Your task to perform on an android device: Go to notification settings Image 0: 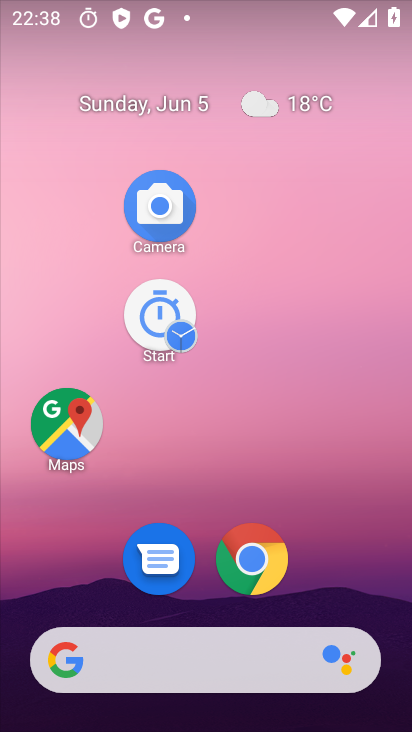
Step 0: drag from (212, 205) to (178, 11)
Your task to perform on an android device: Go to notification settings Image 1: 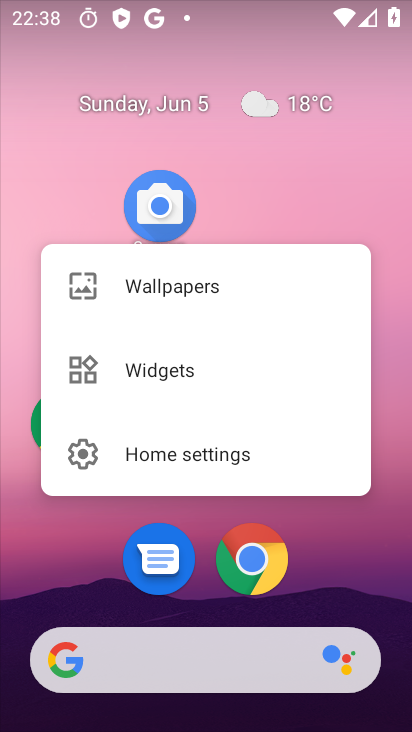
Step 1: click (239, 180)
Your task to perform on an android device: Go to notification settings Image 2: 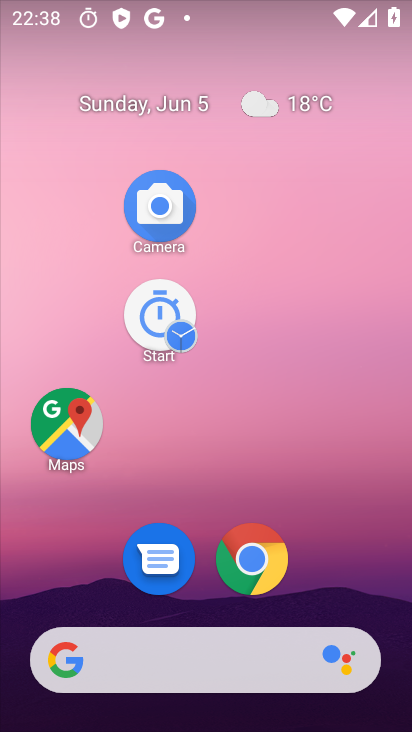
Step 2: drag from (249, 163) to (249, 39)
Your task to perform on an android device: Go to notification settings Image 3: 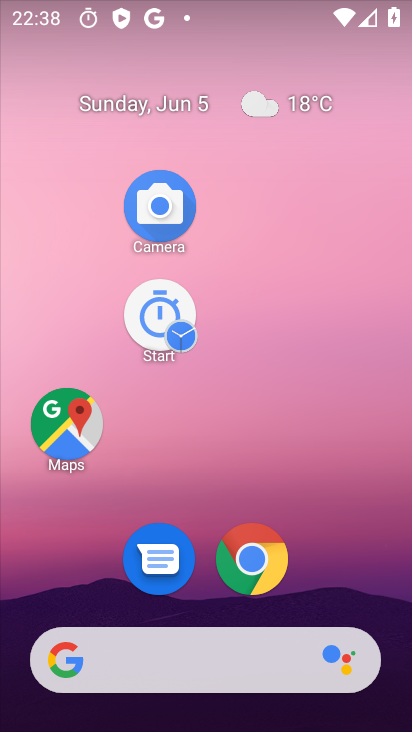
Step 3: drag from (250, 705) to (187, 32)
Your task to perform on an android device: Go to notification settings Image 4: 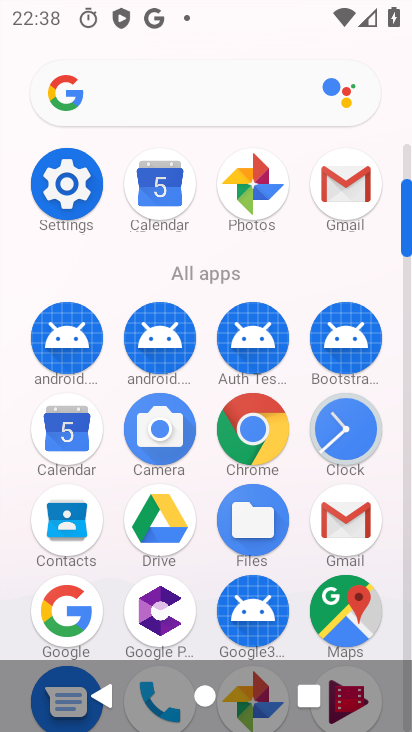
Step 4: click (57, 178)
Your task to perform on an android device: Go to notification settings Image 5: 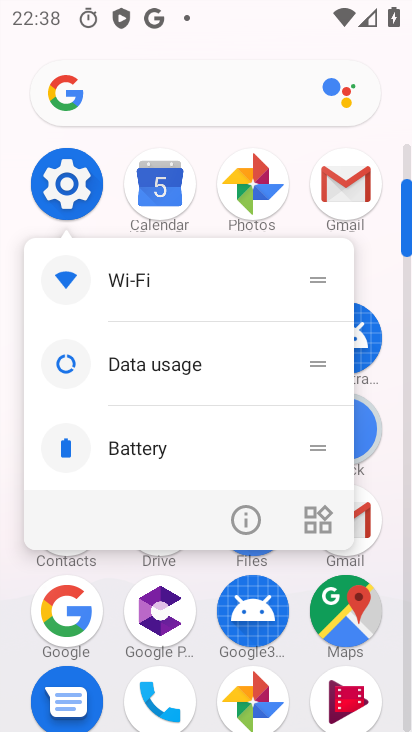
Step 5: click (50, 195)
Your task to perform on an android device: Go to notification settings Image 6: 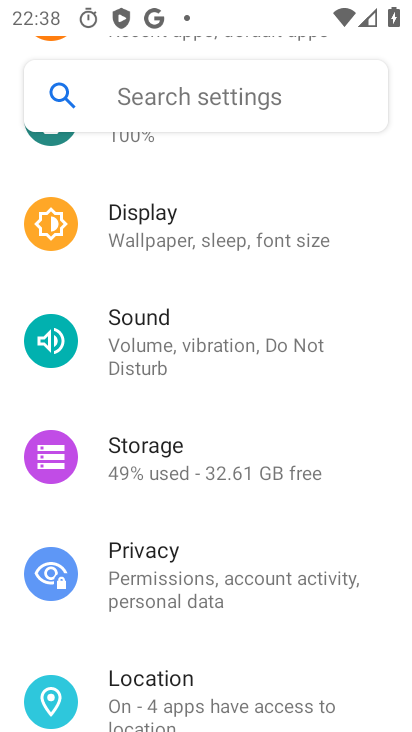
Step 6: drag from (237, 233) to (260, 462)
Your task to perform on an android device: Go to notification settings Image 7: 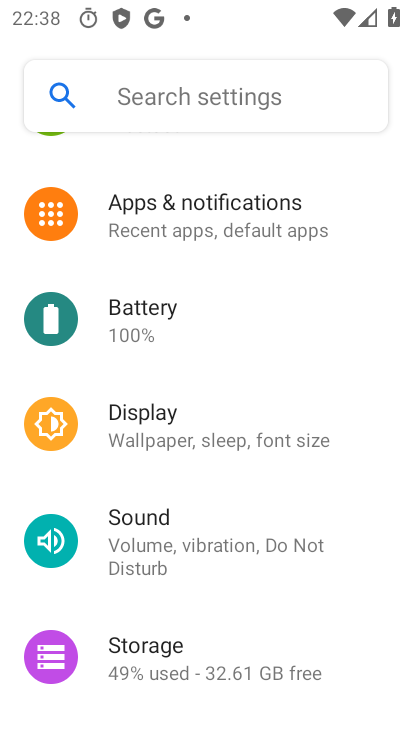
Step 7: click (186, 203)
Your task to perform on an android device: Go to notification settings Image 8: 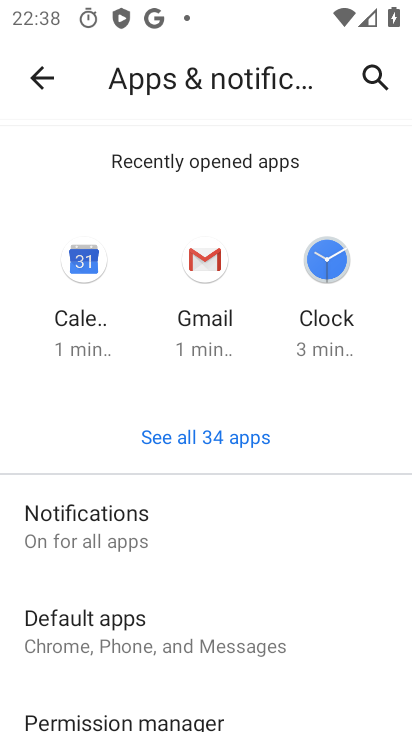
Step 8: click (68, 544)
Your task to perform on an android device: Go to notification settings Image 9: 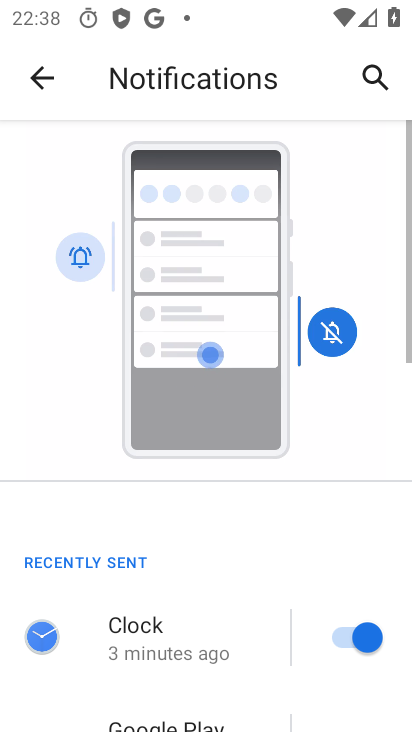
Step 9: drag from (191, 492) to (196, 28)
Your task to perform on an android device: Go to notification settings Image 10: 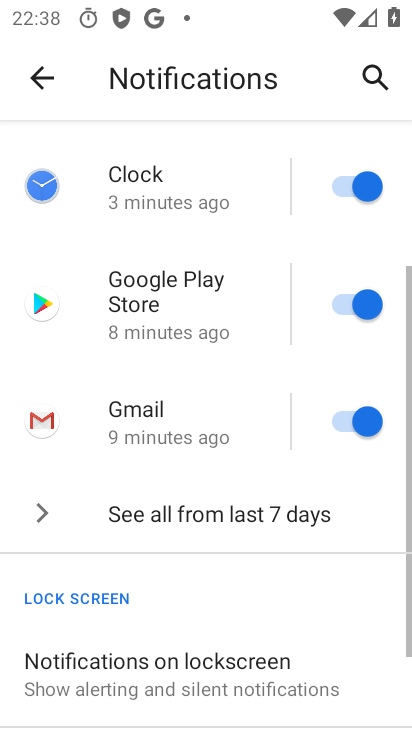
Step 10: drag from (232, 698) to (236, 39)
Your task to perform on an android device: Go to notification settings Image 11: 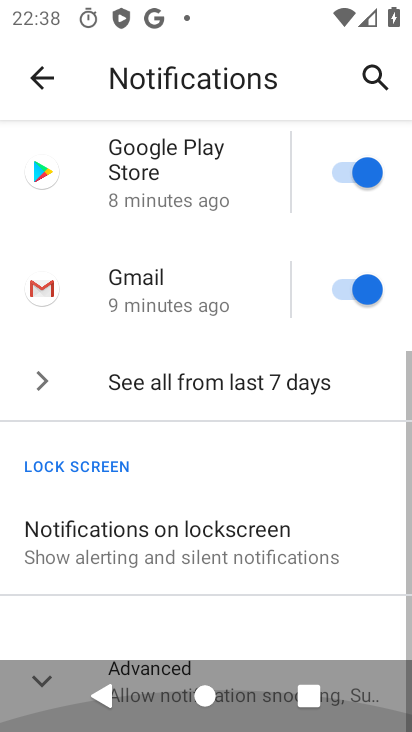
Step 11: drag from (244, 513) to (213, 111)
Your task to perform on an android device: Go to notification settings Image 12: 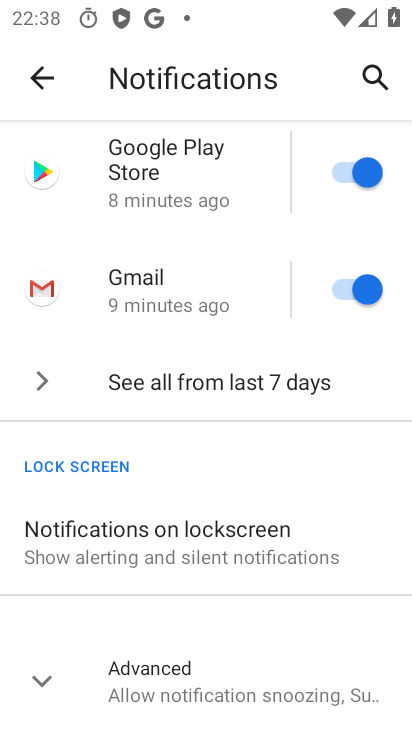
Step 12: drag from (152, 628) to (185, 334)
Your task to perform on an android device: Go to notification settings Image 13: 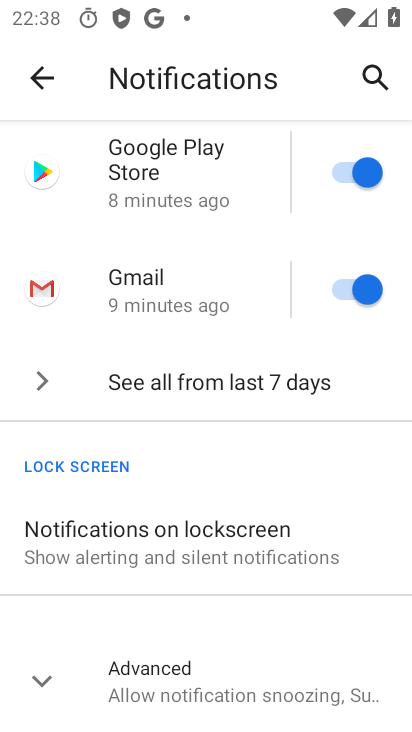
Step 13: click (165, 670)
Your task to perform on an android device: Go to notification settings Image 14: 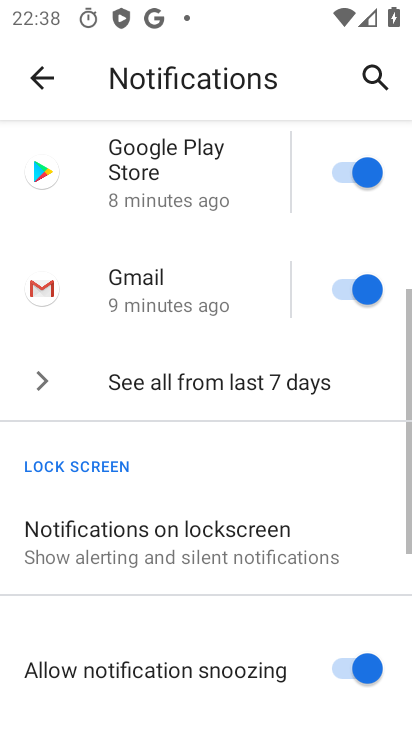
Step 14: task complete